Your task to perform on an android device: See recent photos Image 0: 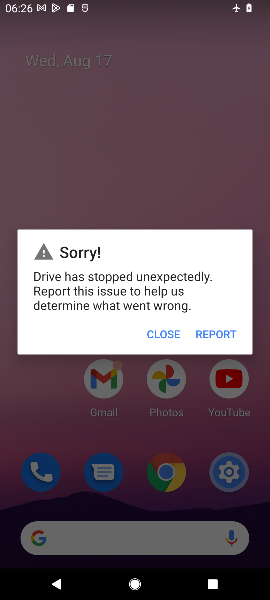
Step 0: press home button
Your task to perform on an android device: See recent photos Image 1: 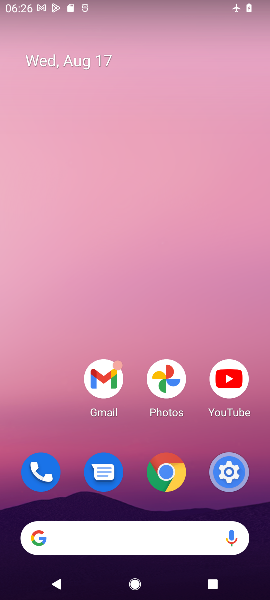
Step 1: click (164, 379)
Your task to perform on an android device: See recent photos Image 2: 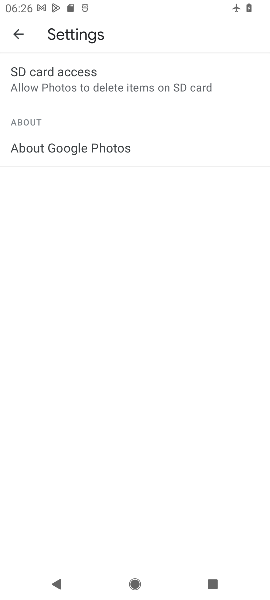
Step 2: click (19, 31)
Your task to perform on an android device: See recent photos Image 3: 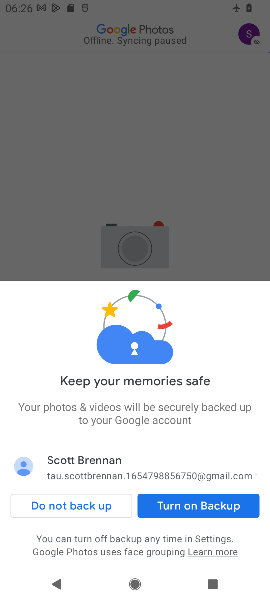
Step 3: click (198, 504)
Your task to perform on an android device: See recent photos Image 4: 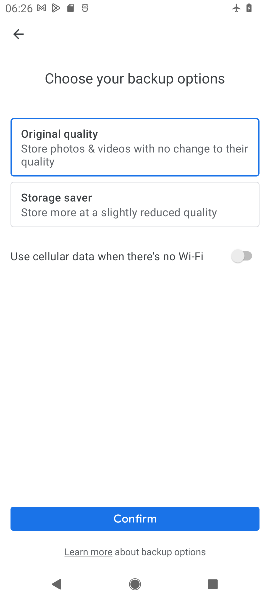
Step 4: click (111, 520)
Your task to perform on an android device: See recent photos Image 5: 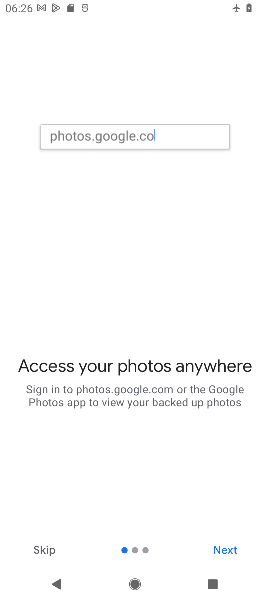
Step 5: click (225, 549)
Your task to perform on an android device: See recent photos Image 6: 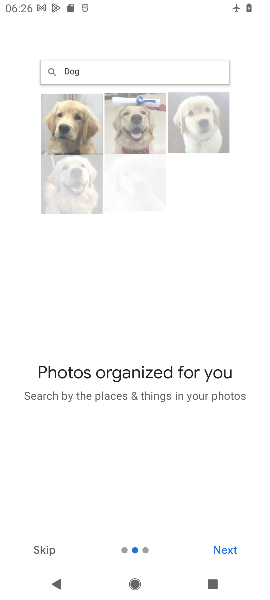
Step 6: click (225, 550)
Your task to perform on an android device: See recent photos Image 7: 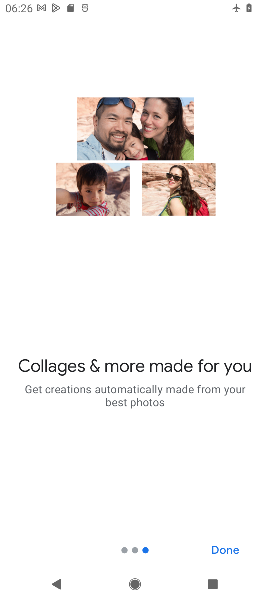
Step 7: click (225, 550)
Your task to perform on an android device: See recent photos Image 8: 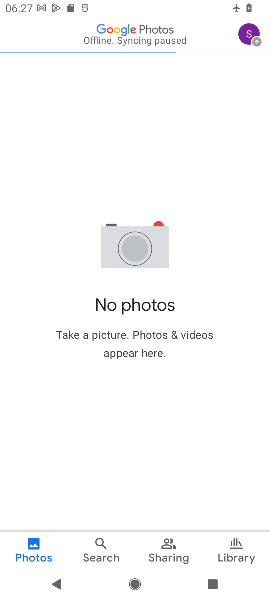
Step 8: task complete